Your task to perform on an android device: Open the stopwatch Image 0: 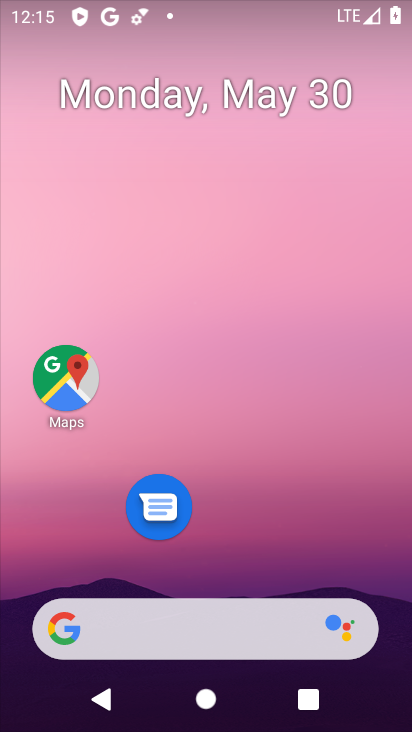
Step 0: drag from (258, 510) to (313, 100)
Your task to perform on an android device: Open the stopwatch Image 1: 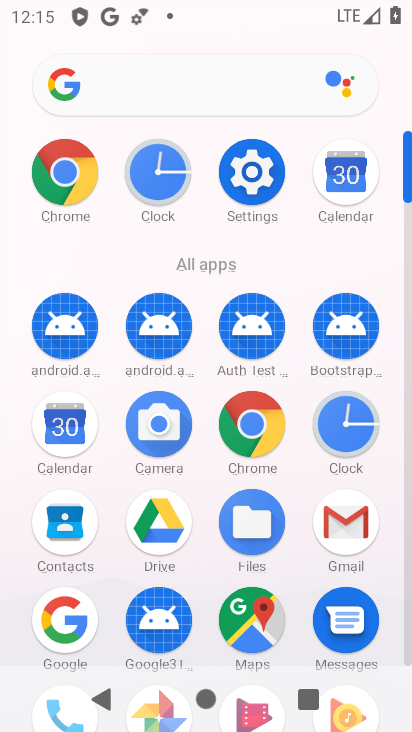
Step 1: click (338, 433)
Your task to perform on an android device: Open the stopwatch Image 2: 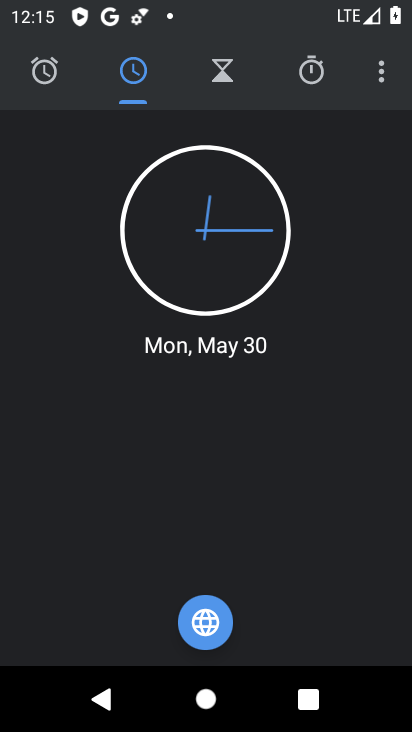
Step 2: click (303, 76)
Your task to perform on an android device: Open the stopwatch Image 3: 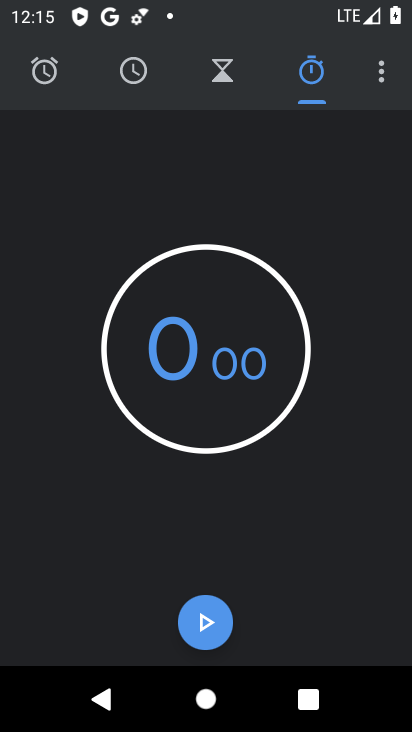
Step 3: task complete